Your task to perform on an android device: Turn on the flashlight Image 0: 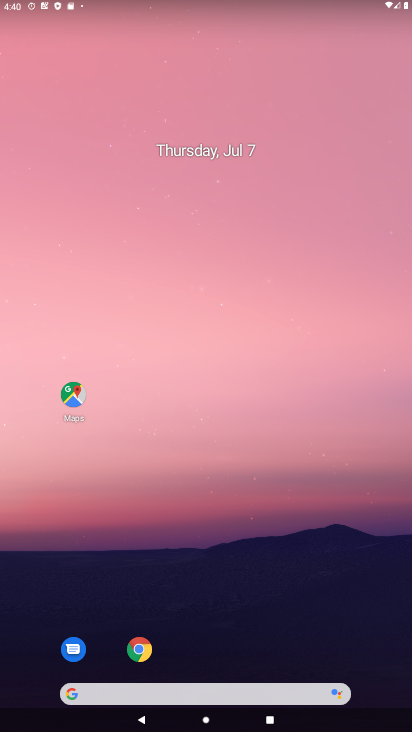
Step 0: drag from (363, 673) to (246, 94)
Your task to perform on an android device: Turn on the flashlight Image 1: 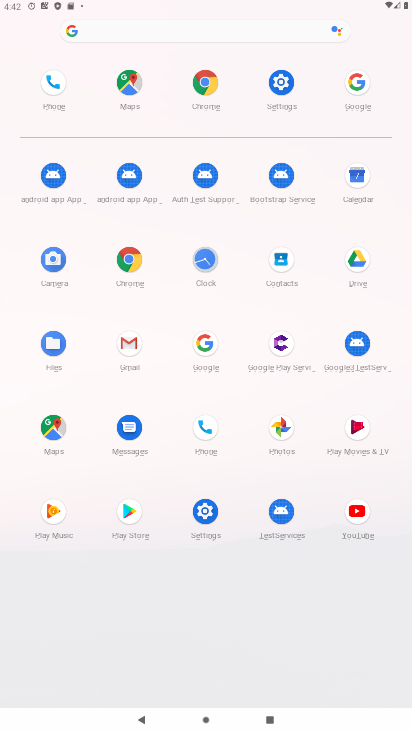
Step 1: click (279, 93)
Your task to perform on an android device: Turn on the flashlight Image 2: 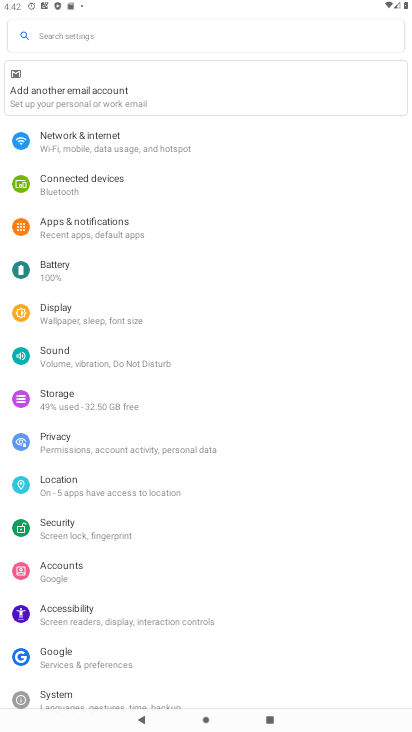
Step 2: task complete